Your task to perform on an android device: Clear all items from cart on bestbuy. Search for "bose soundlink mini" on bestbuy, select the first entry, add it to the cart, then select checkout. Image 0: 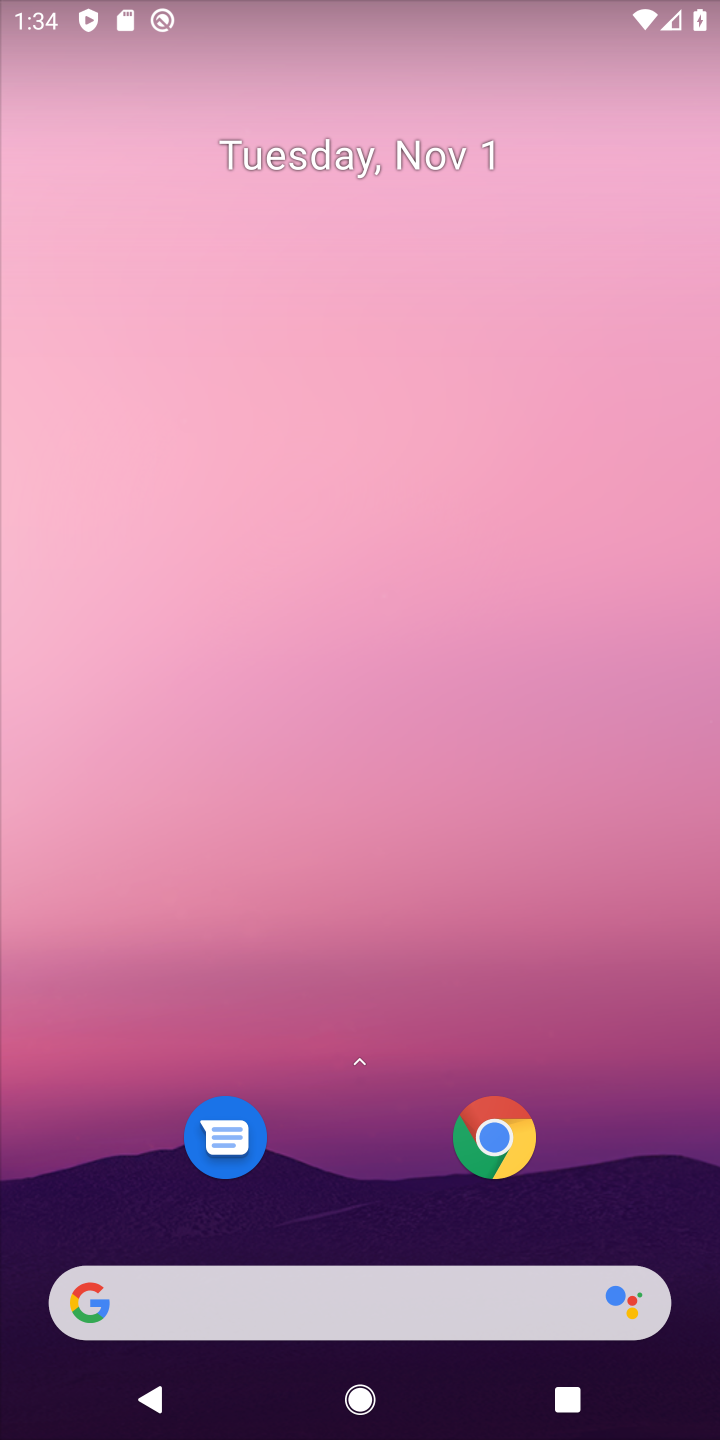
Step 0: click (271, 1284)
Your task to perform on an android device: Clear all items from cart on bestbuy. Search for "bose soundlink mini" on bestbuy, select the first entry, add it to the cart, then select checkout. Image 1: 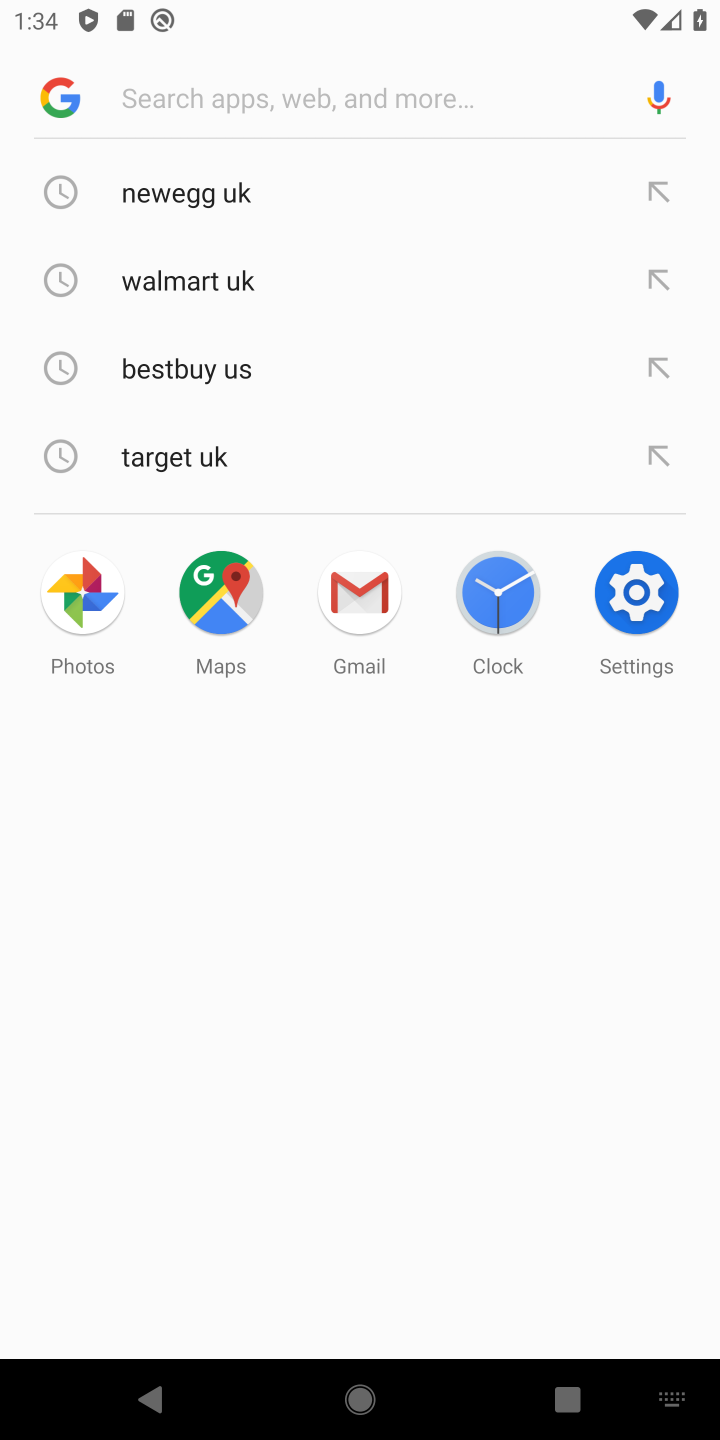
Step 1: type "bestbuy"
Your task to perform on an android device: Clear all items from cart on bestbuy. Search for "bose soundlink mini" on bestbuy, select the first entry, add it to the cart, then select checkout. Image 2: 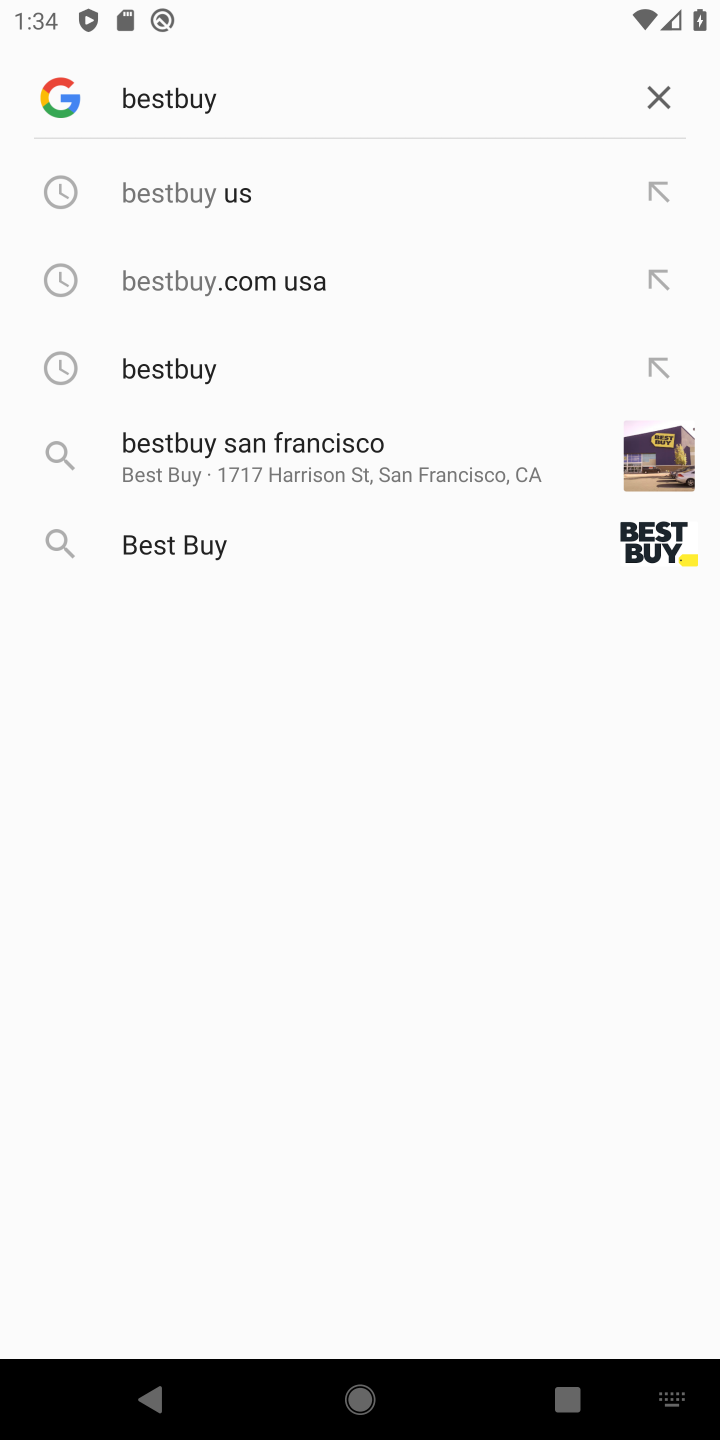
Step 2: click (209, 179)
Your task to perform on an android device: Clear all items from cart on bestbuy. Search for "bose soundlink mini" on bestbuy, select the first entry, add it to the cart, then select checkout. Image 3: 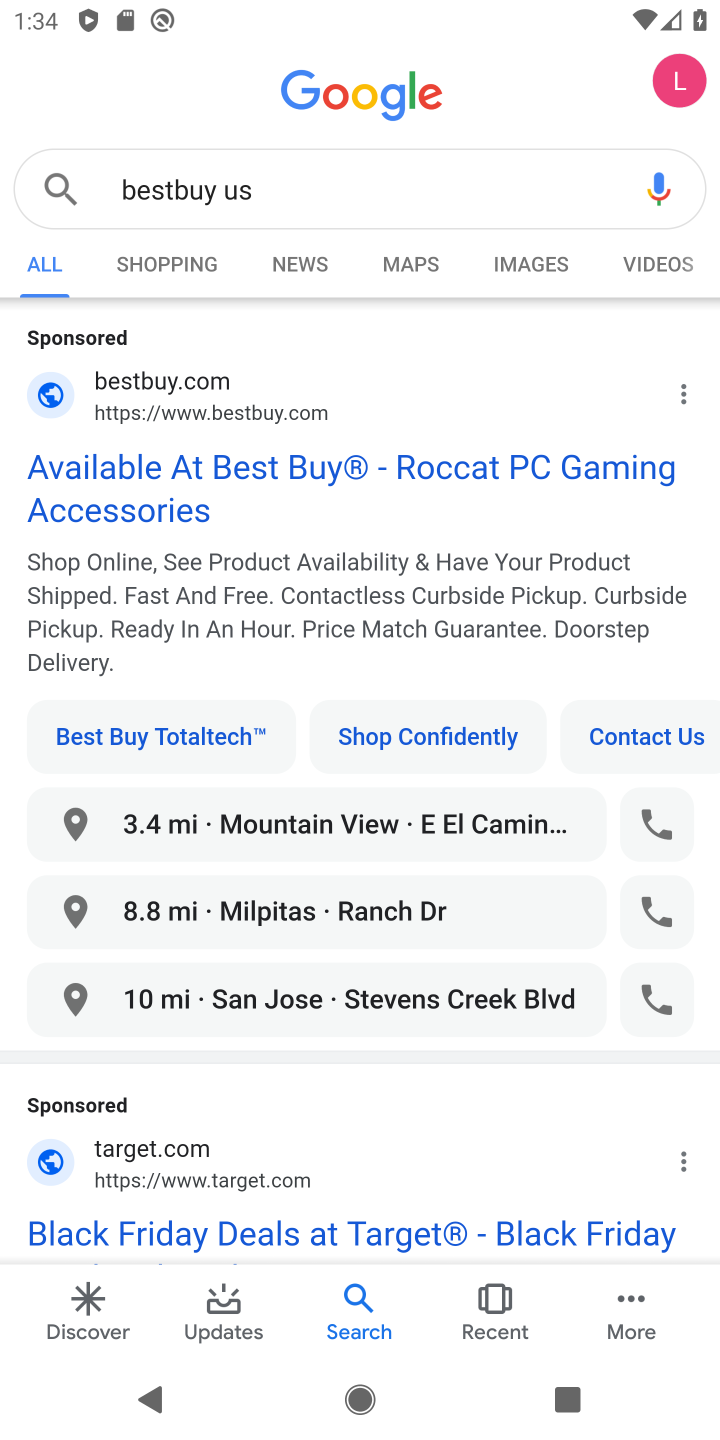
Step 3: click (310, 457)
Your task to perform on an android device: Clear all items from cart on bestbuy. Search for "bose soundlink mini" on bestbuy, select the first entry, add it to the cart, then select checkout. Image 4: 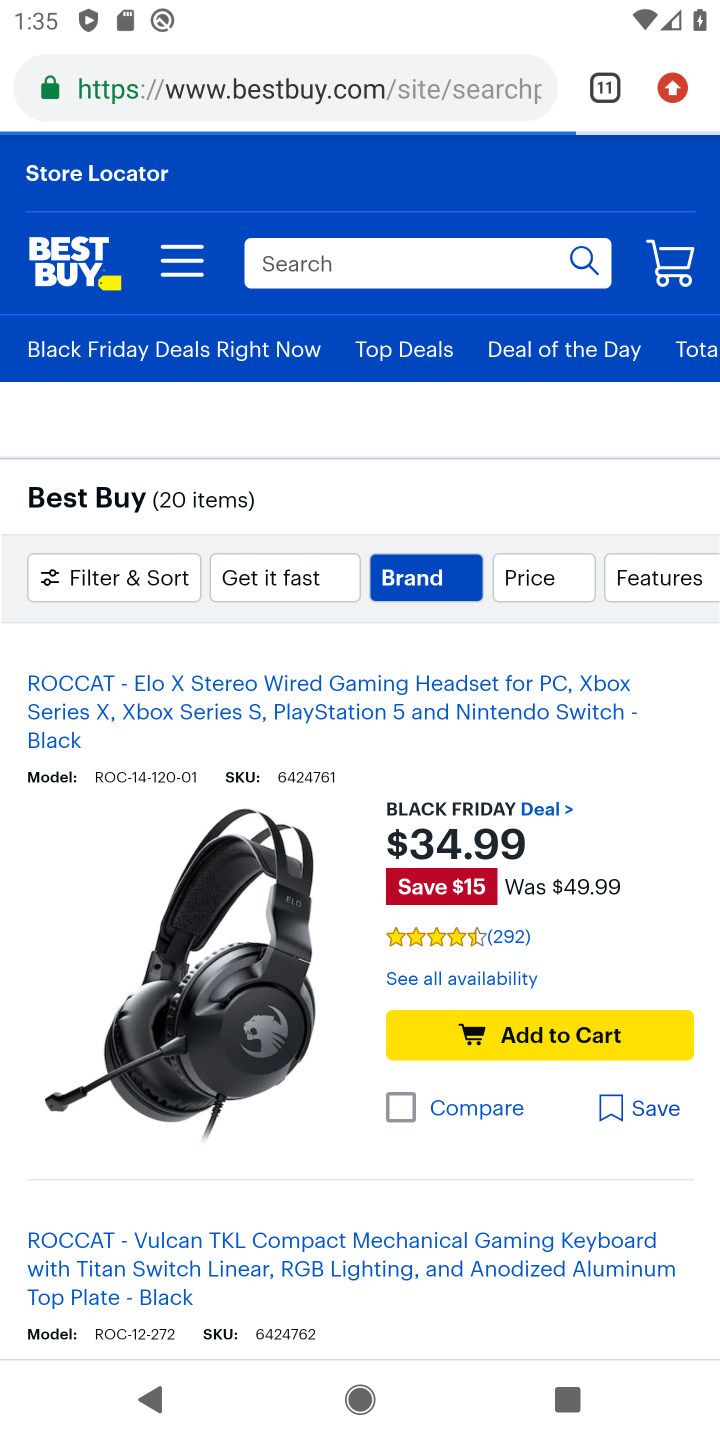
Step 4: click (582, 1058)
Your task to perform on an android device: Clear all items from cart on bestbuy. Search for "bose soundlink mini" on bestbuy, select the first entry, add it to the cart, then select checkout. Image 5: 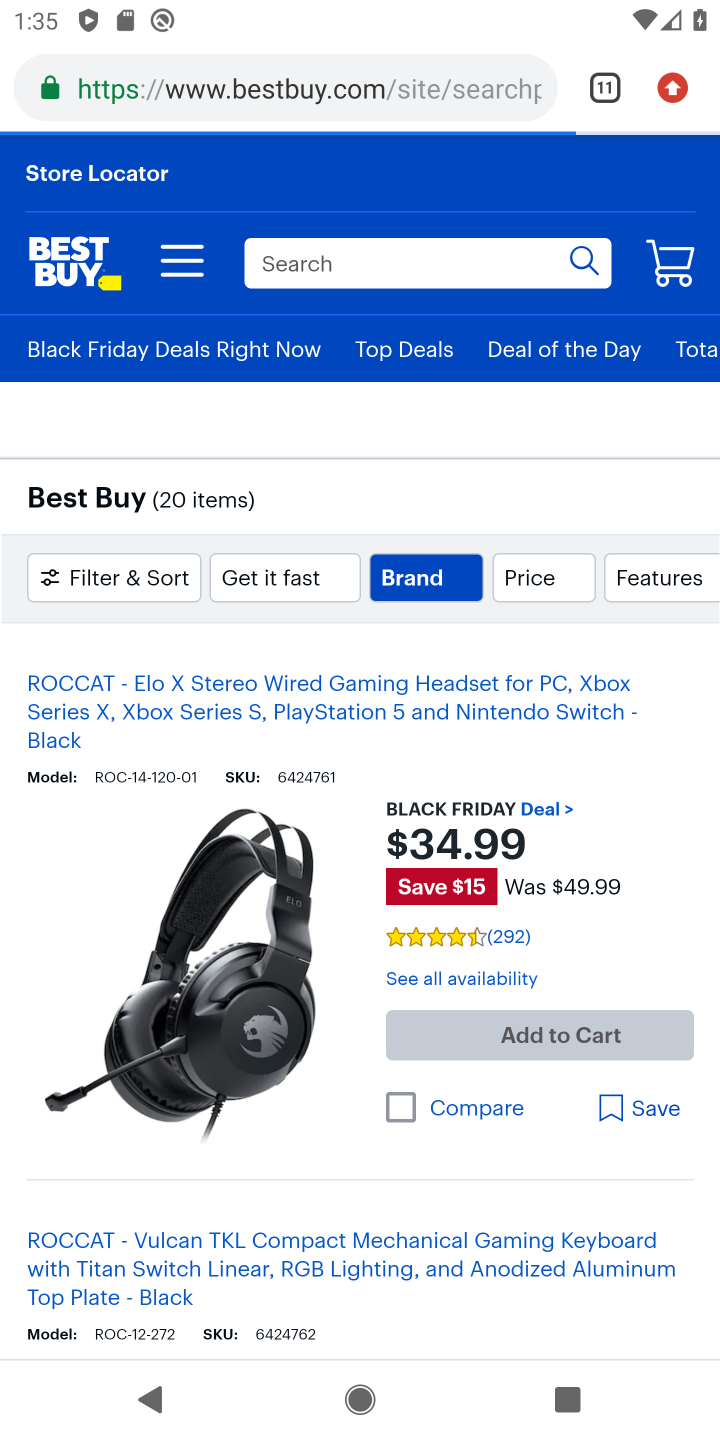
Step 5: task complete